Your task to perform on an android device: turn off picture-in-picture Image 0: 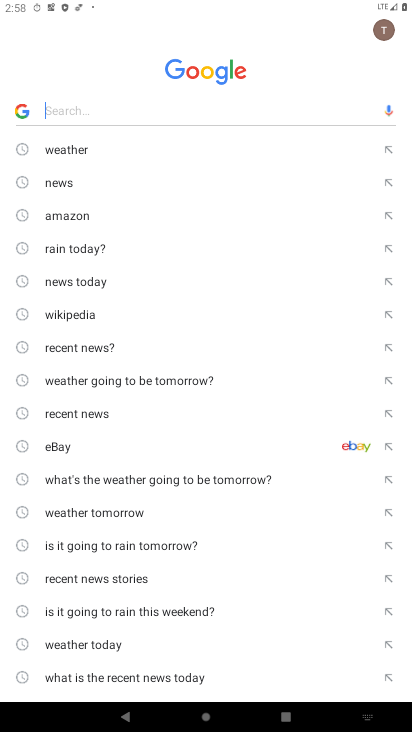
Step 0: press back button
Your task to perform on an android device: turn off picture-in-picture Image 1: 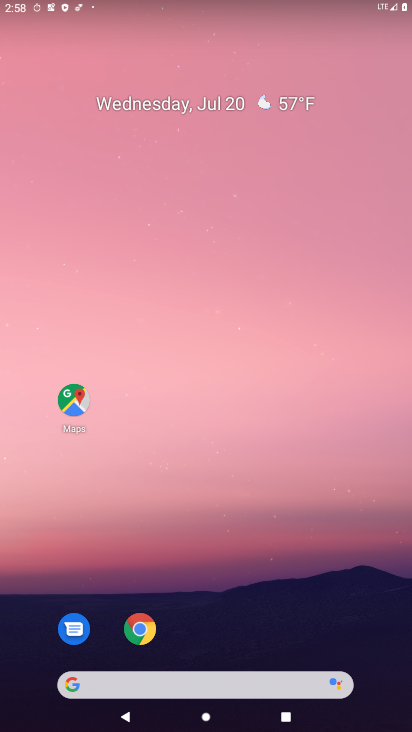
Step 1: click (193, 632)
Your task to perform on an android device: turn off picture-in-picture Image 2: 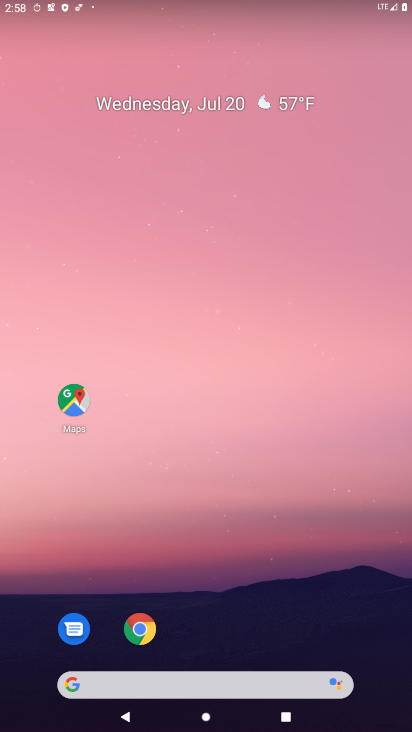
Step 2: click (148, 630)
Your task to perform on an android device: turn off picture-in-picture Image 3: 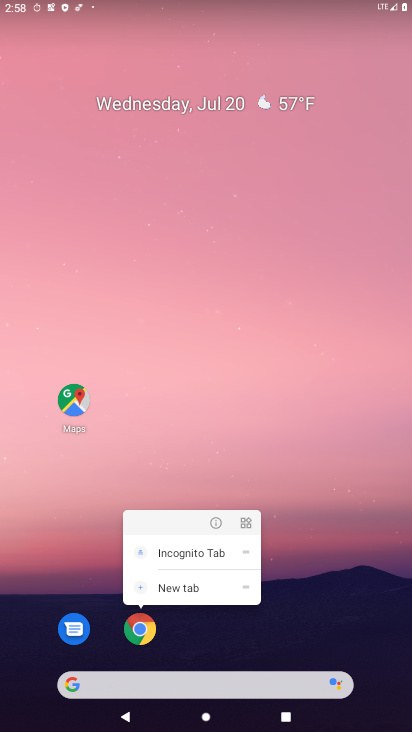
Step 3: click (210, 525)
Your task to perform on an android device: turn off picture-in-picture Image 4: 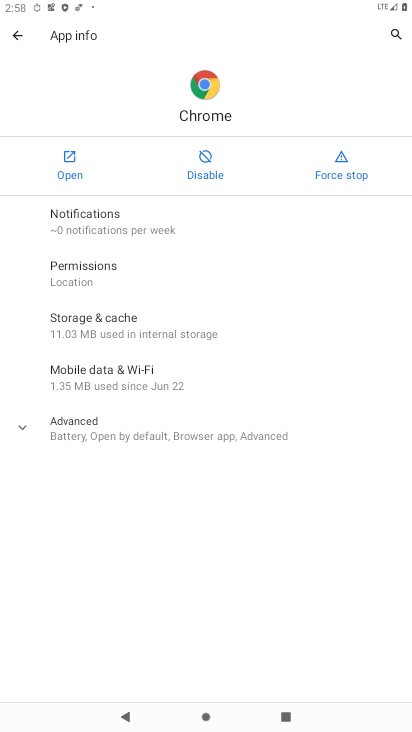
Step 4: click (138, 440)
Your task to perform on an android device: turn off picture-in-picture Image 5: 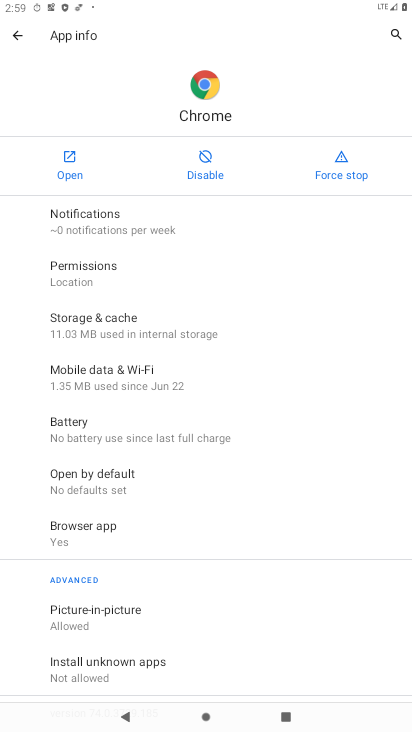
Step 5: drag from (137, 673) to (72, 120)
Your task to perform on an android device: turn off picture-in-picture Image 6: 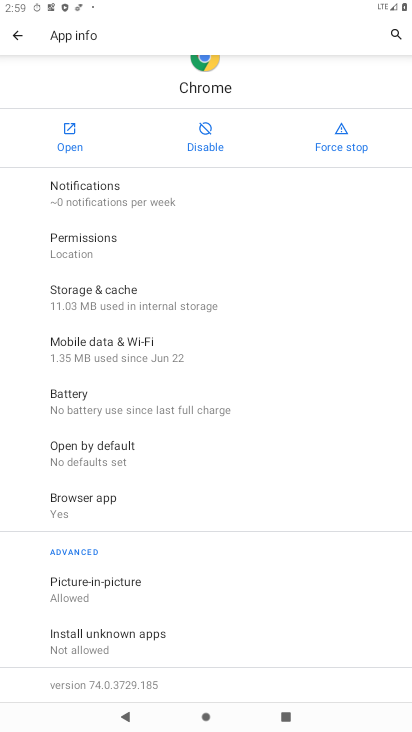
Step 6: click (84, 571)
Your task to perform on an android device: turn off picture-in-picture Image 7: 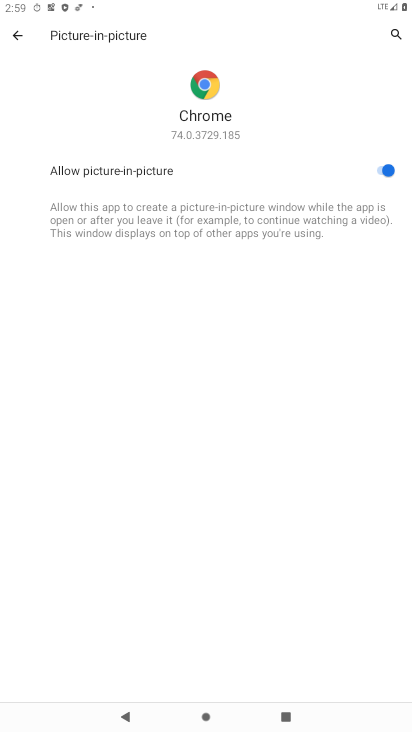
Step 7: click (393, 165)
Your task to perform on an android device: turn off picture-in-picture Image 8: 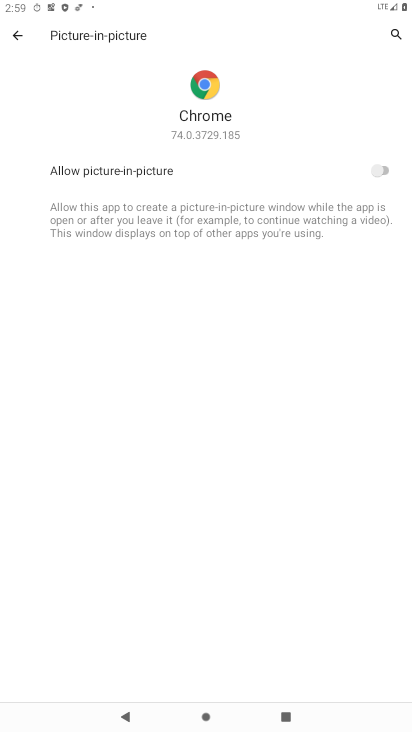
Step 8: task complete